Your task to perform on an android device: change the clock display to show seconds Image 0: 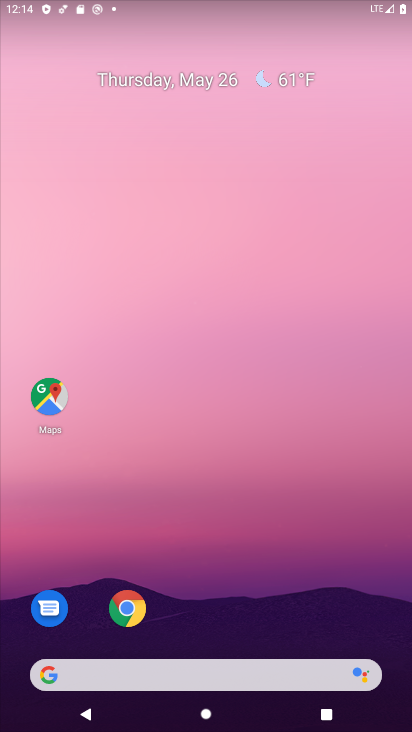
Step 0: drag from (387, 625) to (314, 51)
Your task to perform on an android device: change the clock display to show seconds Image 1: 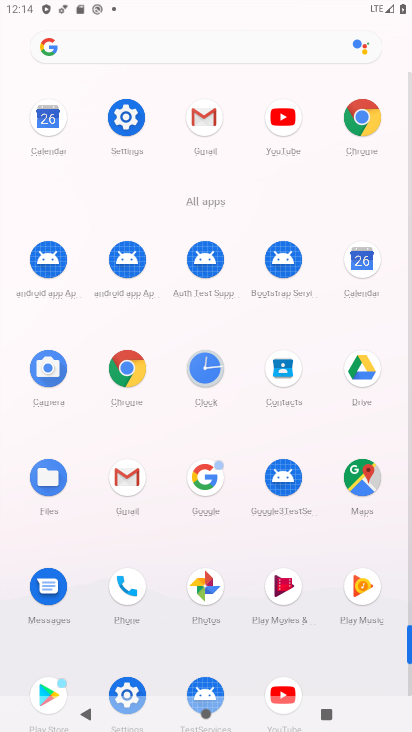
Step 1: click (408, 684)
Your task to perform on an android device: change the clock display to show seconds Image 2: 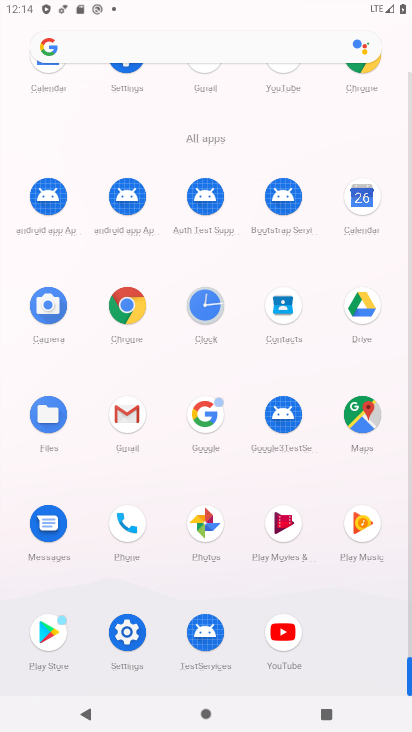
Step 2: click (203, 302)
Your task to perform on an android device: change the clock display to show seconds Image 3: 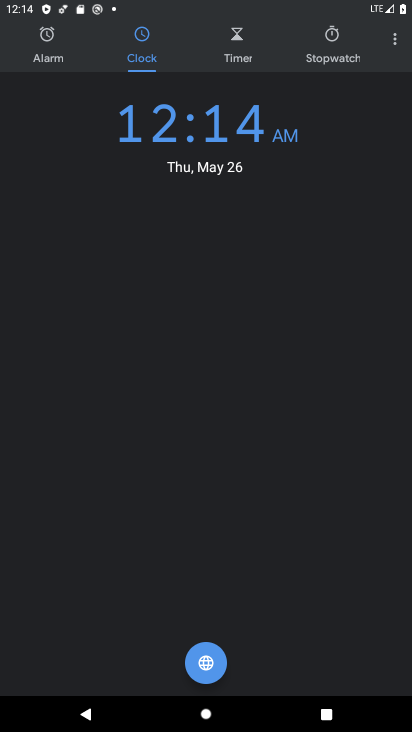
Step 3: click (393, 49)
Your task to perform on an android device: change the clock display to show seconds Image 4: 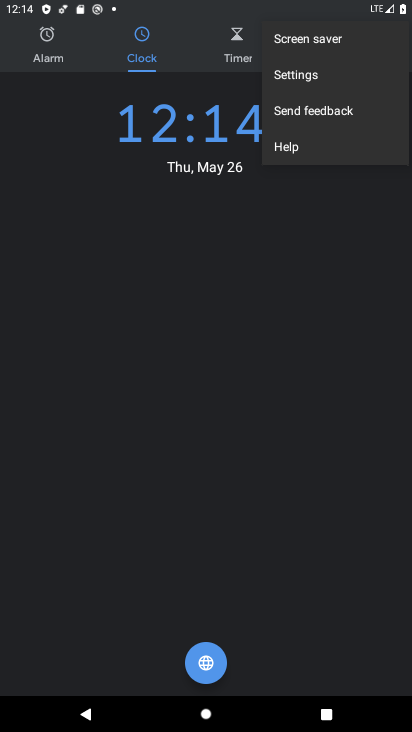
Step 4: click (298, 79)
Your task to perform on an android device: change the clock display to show seconds Image 5: 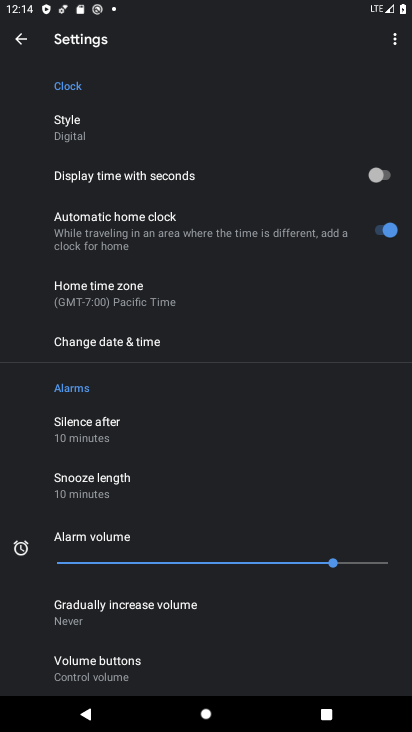
Step 5: click (389, 177)
Your task to perform on an android device: change the clock display to show seconds Image 6: 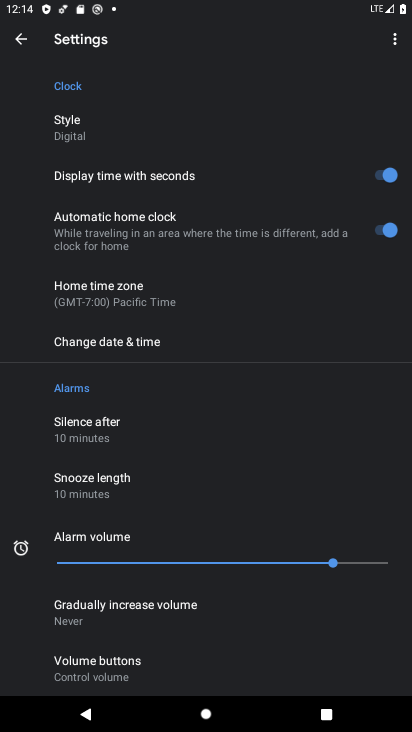
Step 6: task complete